Your task to perform on an android device: turn off location history Image 0: 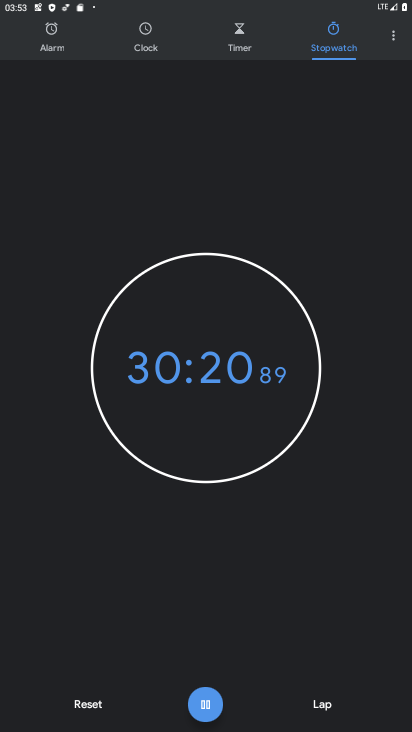
Step 0: press home button
Your task to perform on an android device: turn off location history Image 1: 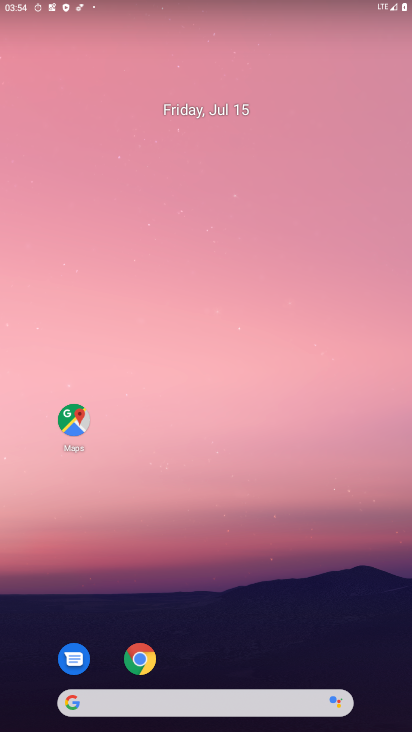
Step 1: drag from (299, 674) to (259, 172)
Your task to perform on an android device: turn off location history Image 2: 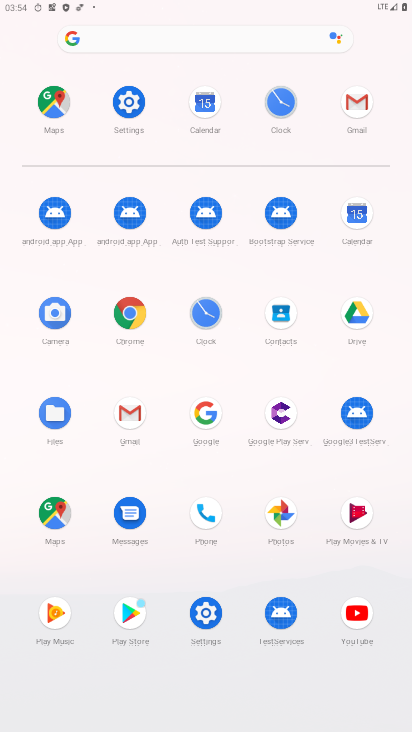
Step 2: click (129, 107)
Your task to perform on an android device: turn off location history Image 3: 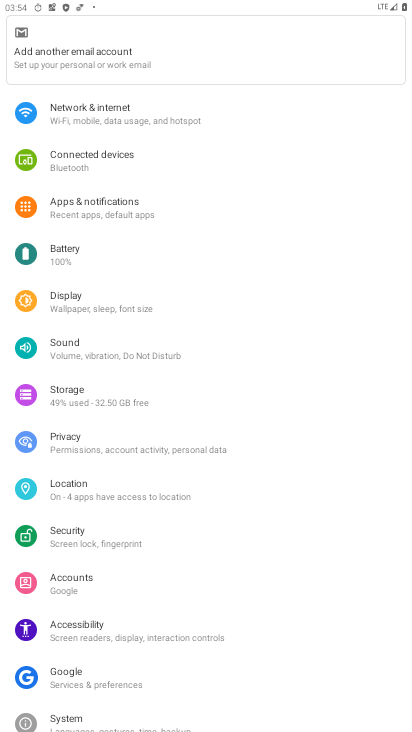
Step 3: click (72, 484)
Your task to perform on an android device: turn off location history Image 4: 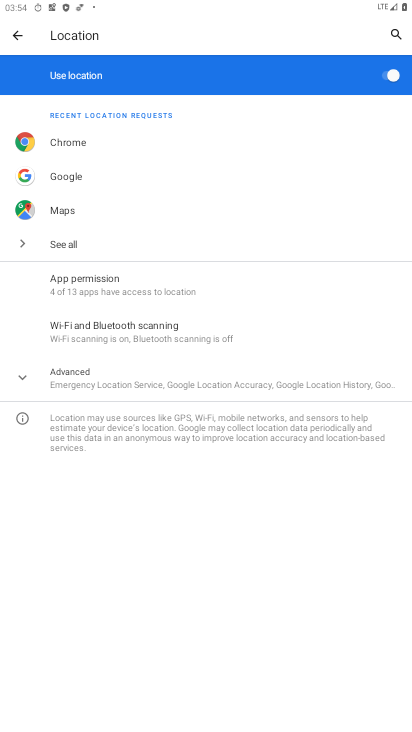
Step 4: click (104, 377)
Your task to perform on an android device: turn off location history Image 5: 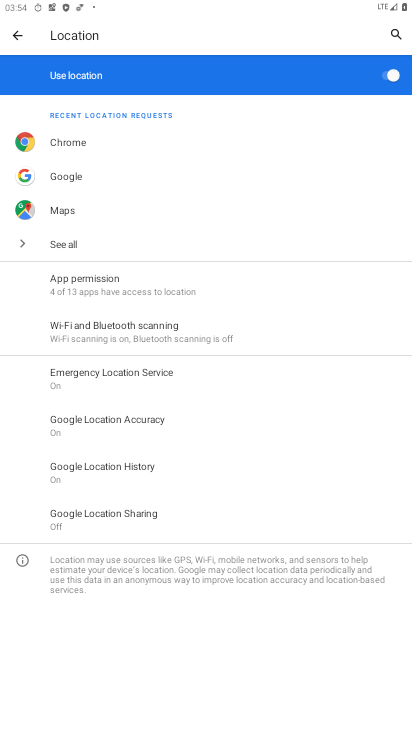
Step 5: click (103, 460)
Your task to perform on an android device: turn off location history Image 6: 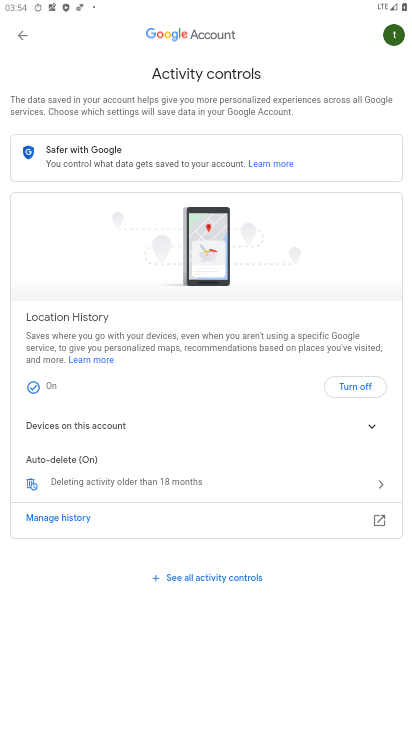
Step 6: click (376, 384)
Your task to perform on an android device: turn off location history Image 7: 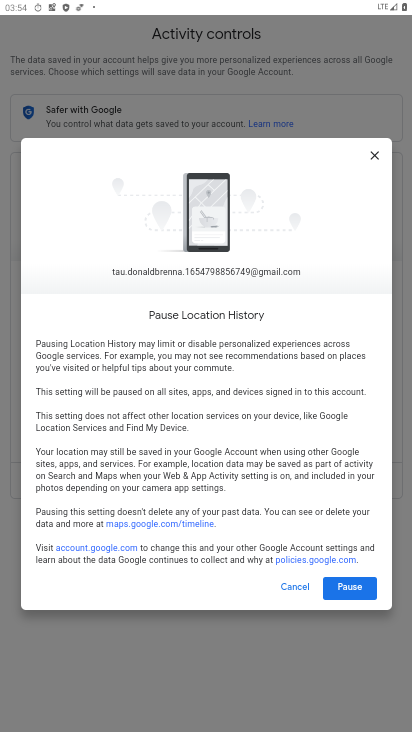
Step 7: click (350, 589)
Your task to perform on an android device: turn off location history Image 8: 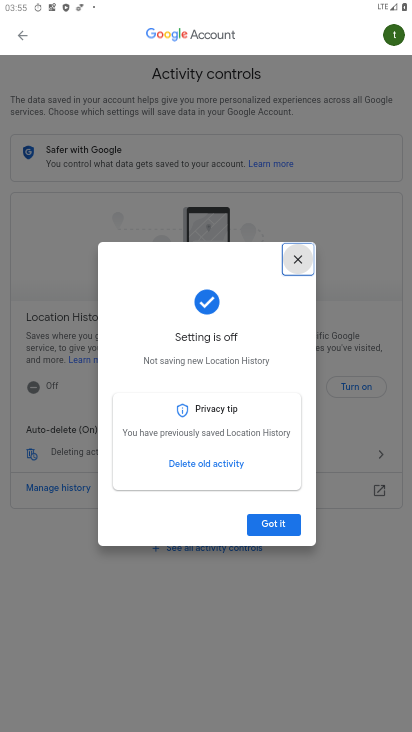
Step 8: task complete